Your task to perform on an android device: View the shopping cart on bestbuy.com. Search for panasonic triple a on bestbuy.com, select the first entry, add it to the cart, then select checkout. Image 0: 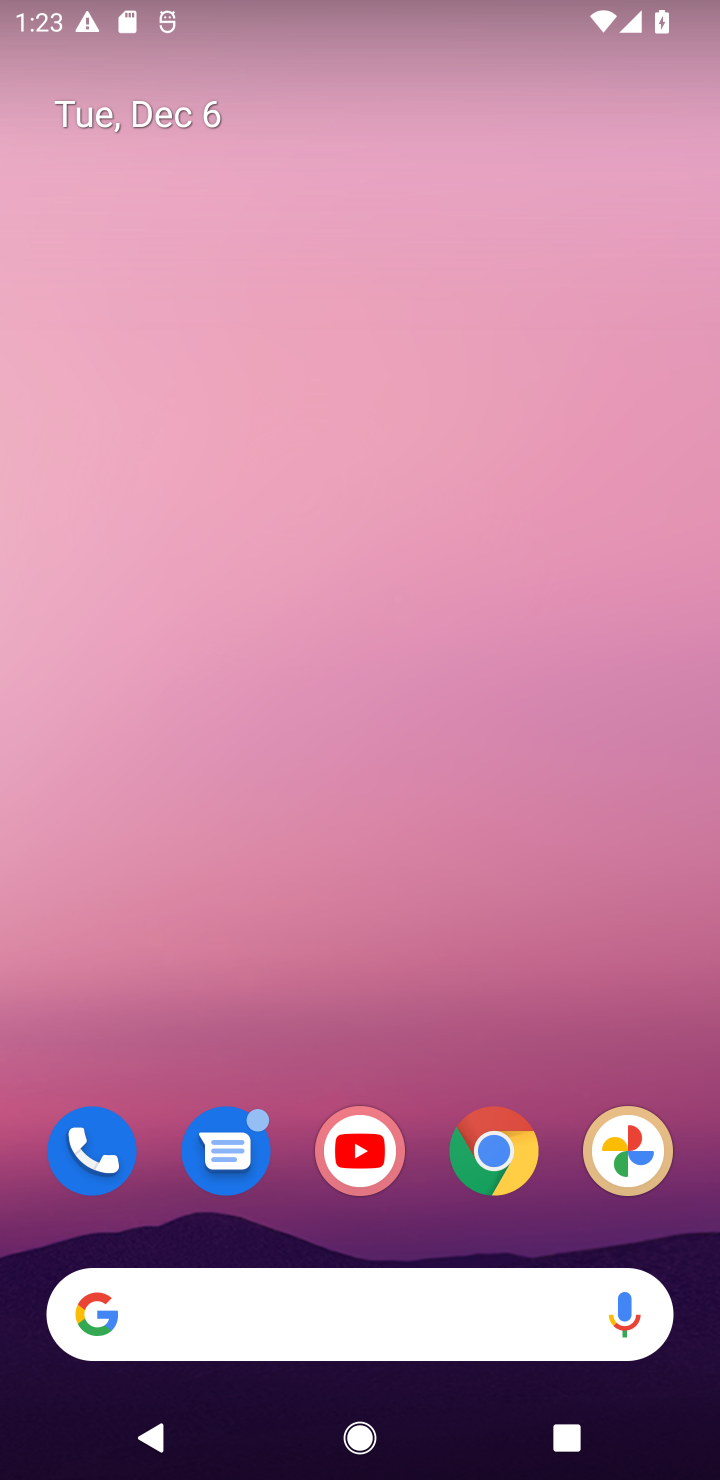
Step 0: click (487, 1156)
Your task to perform on an android device: View the shopping cart on bestbuy.com. Search for panasonic triple a on bestbuy.com, select the first entry, add it to the cart, then select checkout. Image 1: 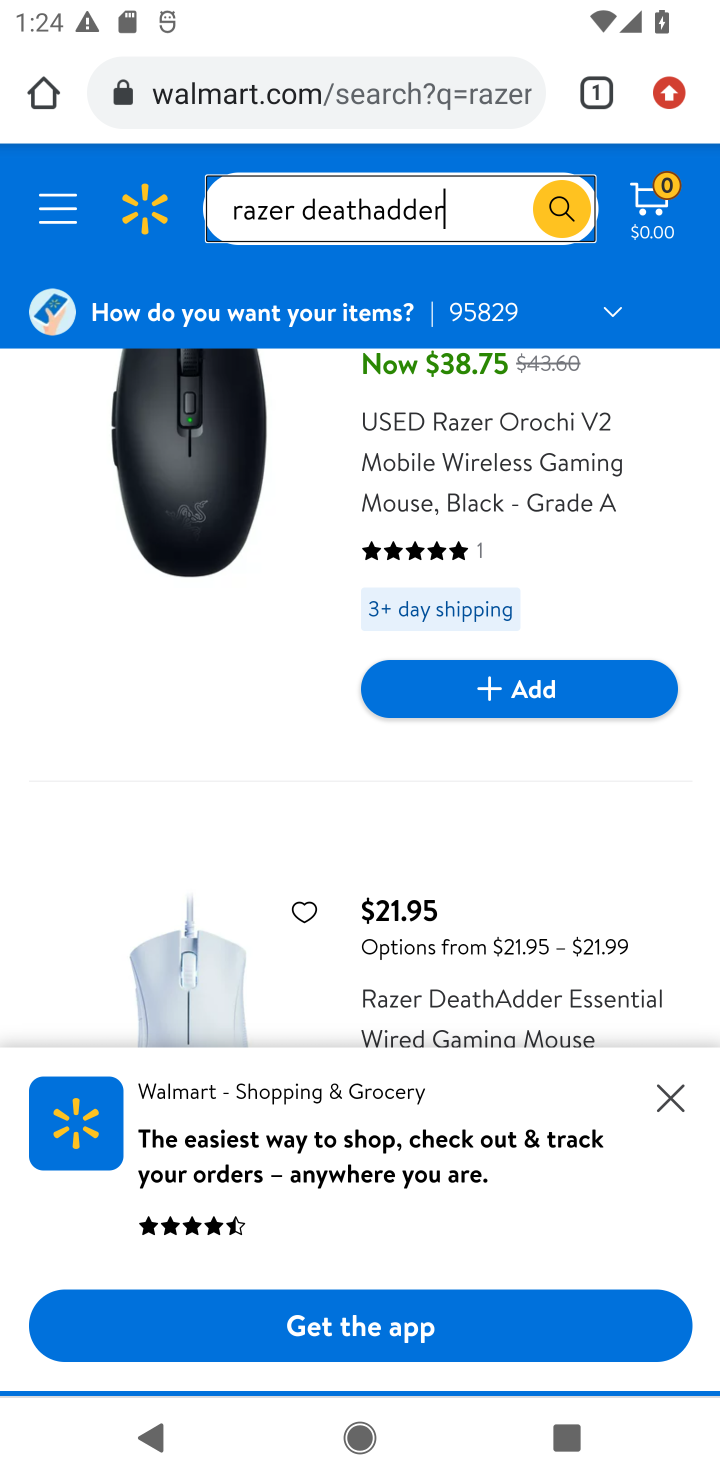
Step 1: click (295, 107)
Your task to perform on an android device: View the shopping cart on bestbuy.com. Search for panasonic triple a on bestbuy.com, select the first entry, add it to the cart, then select checkout. Image 2: 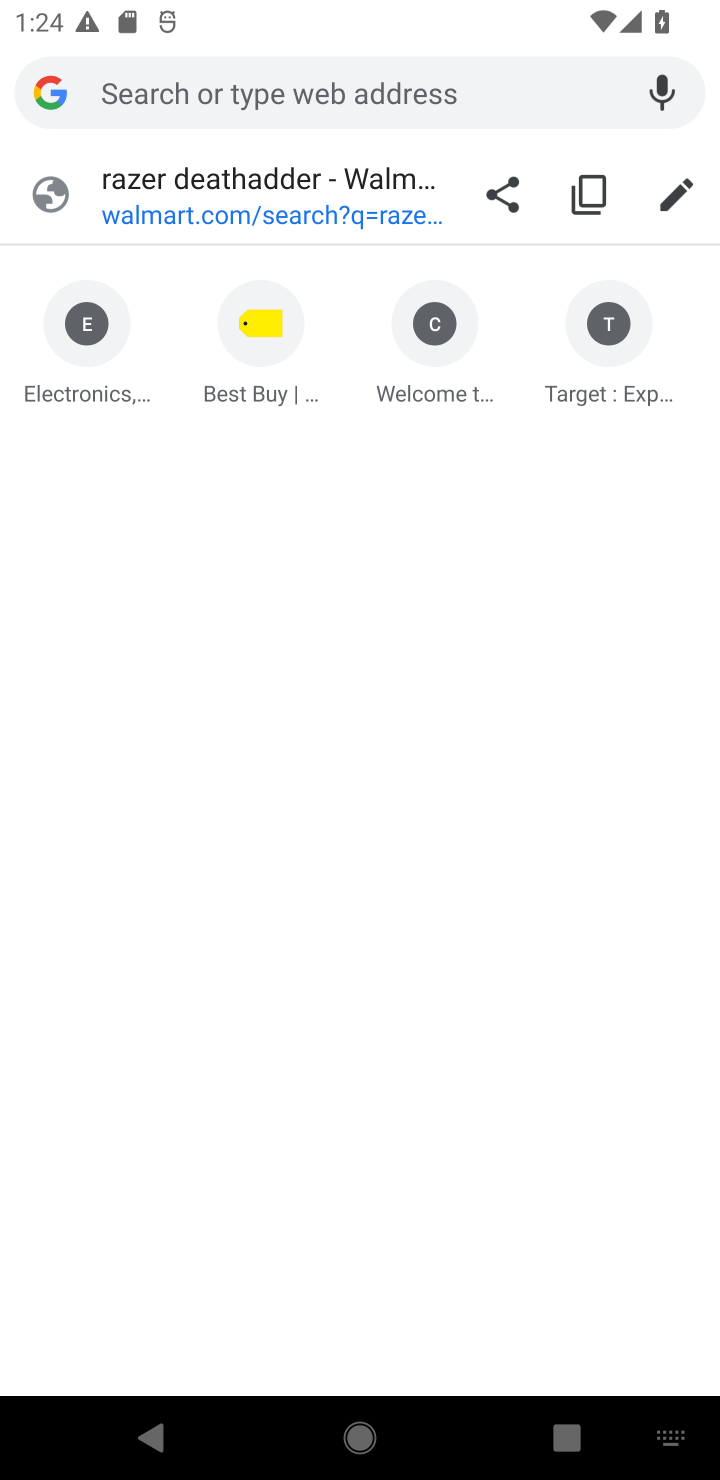
Step 2: click (252, 391)
Your task to perform on an android device: View the shopping cart on bestbuy.com. Search for panasonic triple a on bestbuy.com, select the first entry, add it to the cart, then select checkout. Image 3: 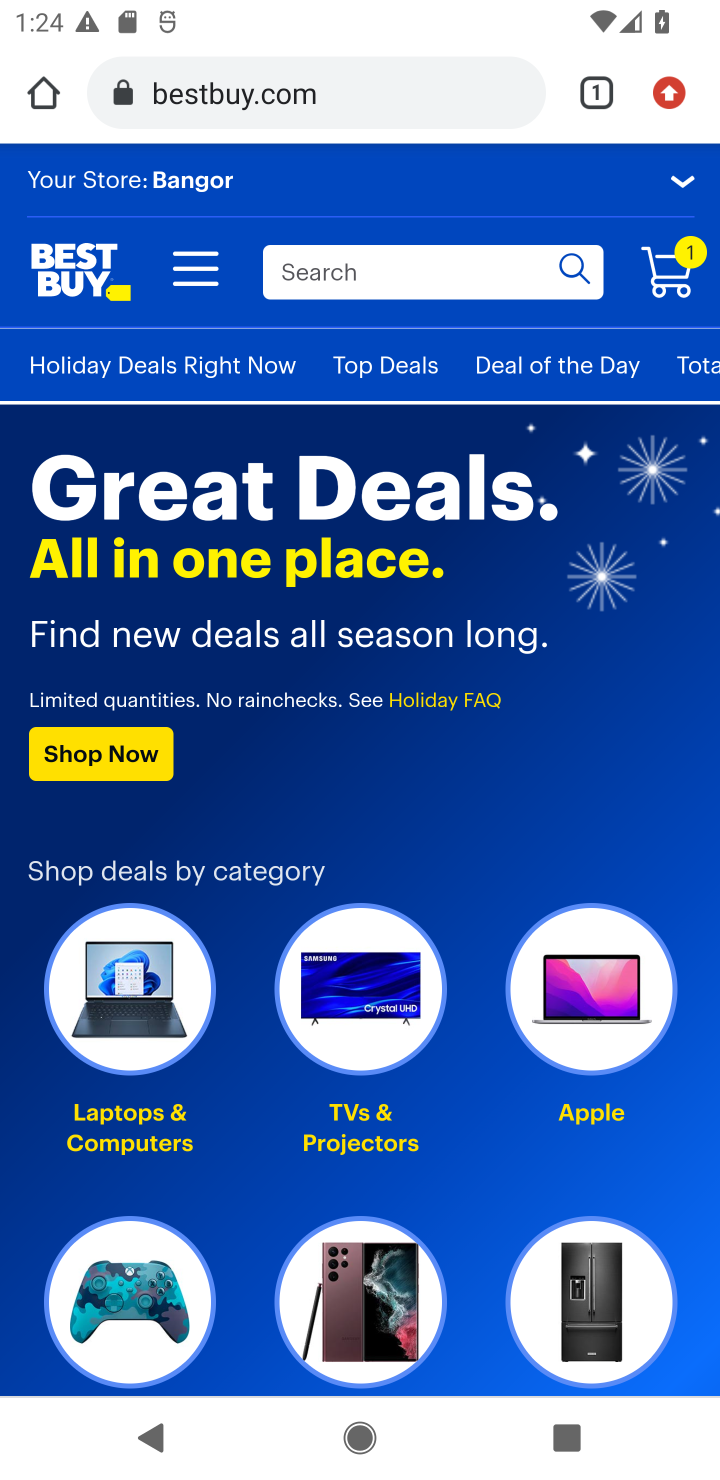
Step 3: click (672, 280)
Your task to perform on an android device: View the shopping cart on bestbuy.com. Search for panasonic triple a on bestbuy.com, select the first entry, add it to the cart, then select checkout. Image 4: 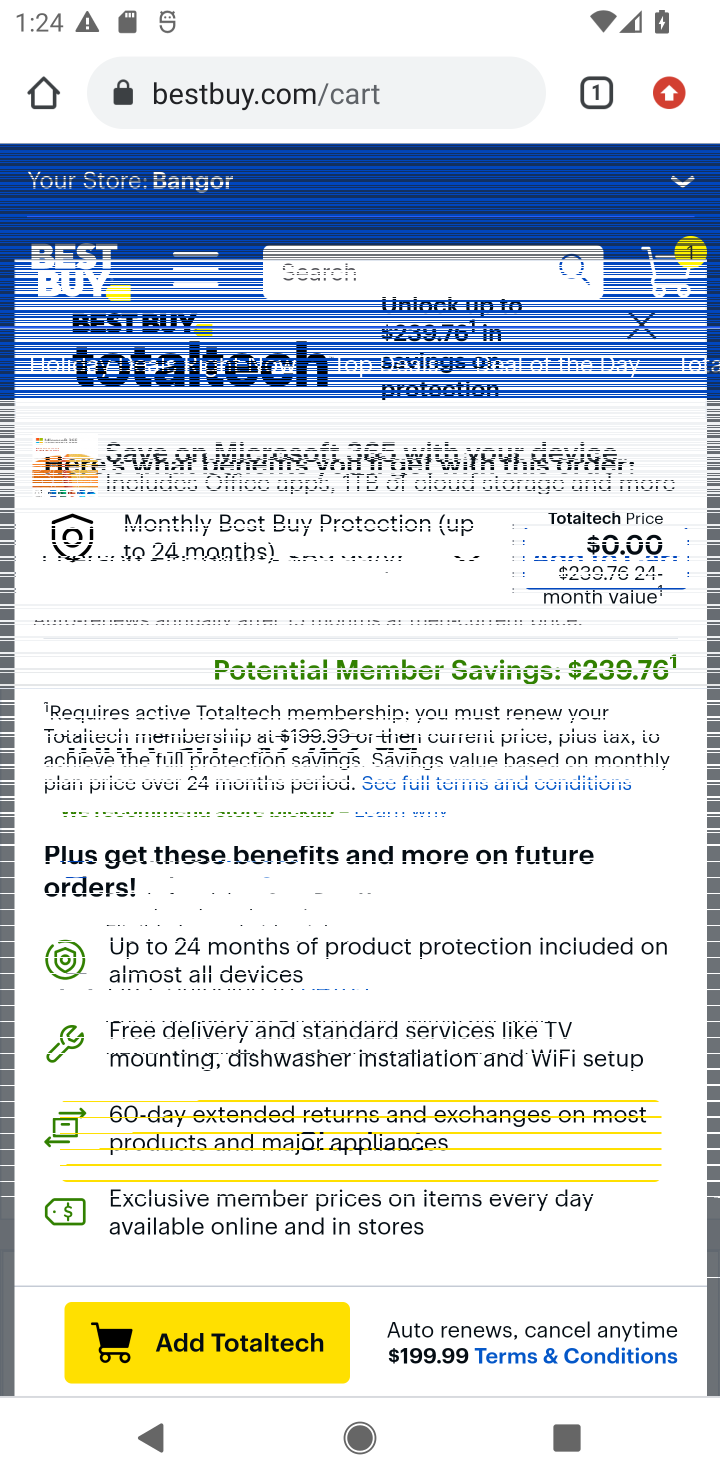
Step 4: click (639, 322)
Your task to perform on an android device: View the shopping cart on bestbuy.com. Search for panasonic triple a on bestbuy.com, select the first entry, add it to the cart, then select checkout. Image 5: 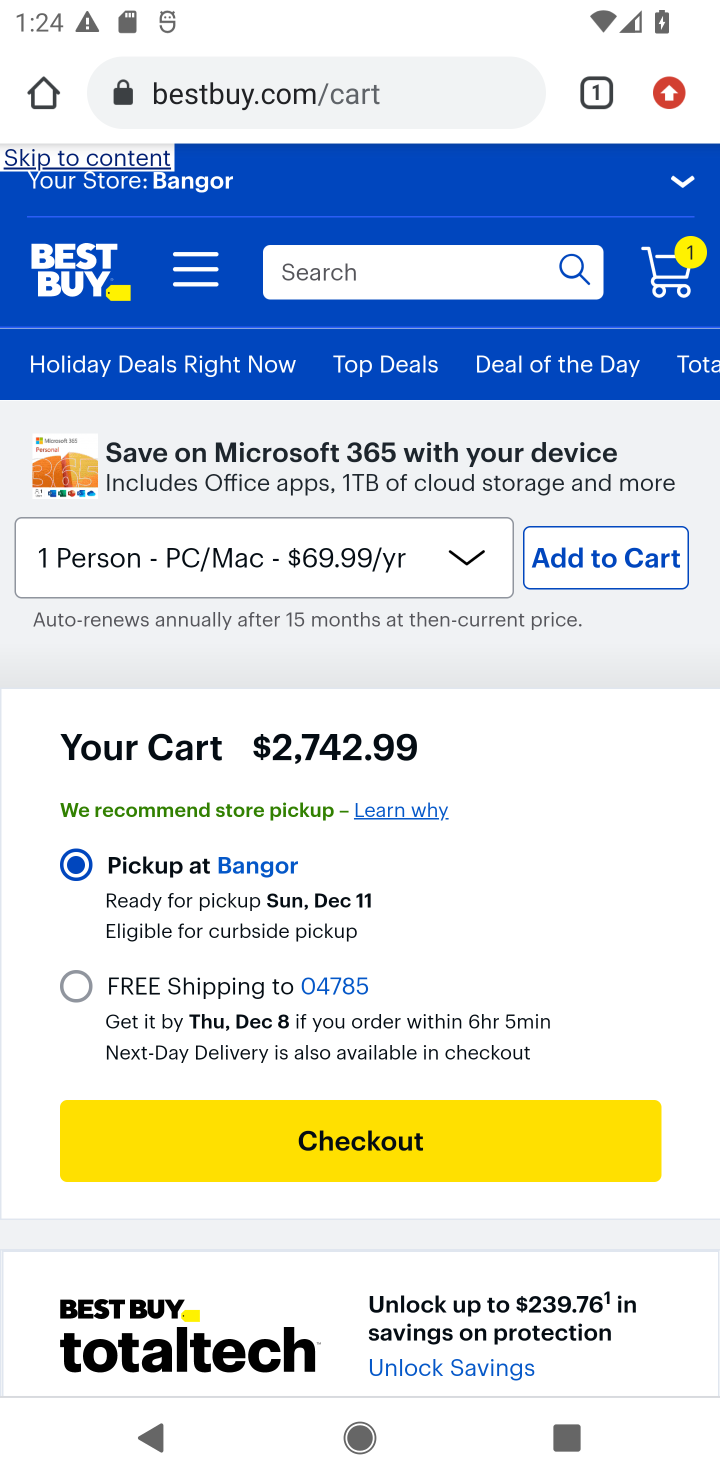
Step 5: drag from (506, 835) to (532, 540)
Your task to perform on an android device: View the shopping cart on bestbuy.com. Search for panasonic triple a on bestbuy.com, select the first entry, add it to the cart, then select checkout. Image 6: 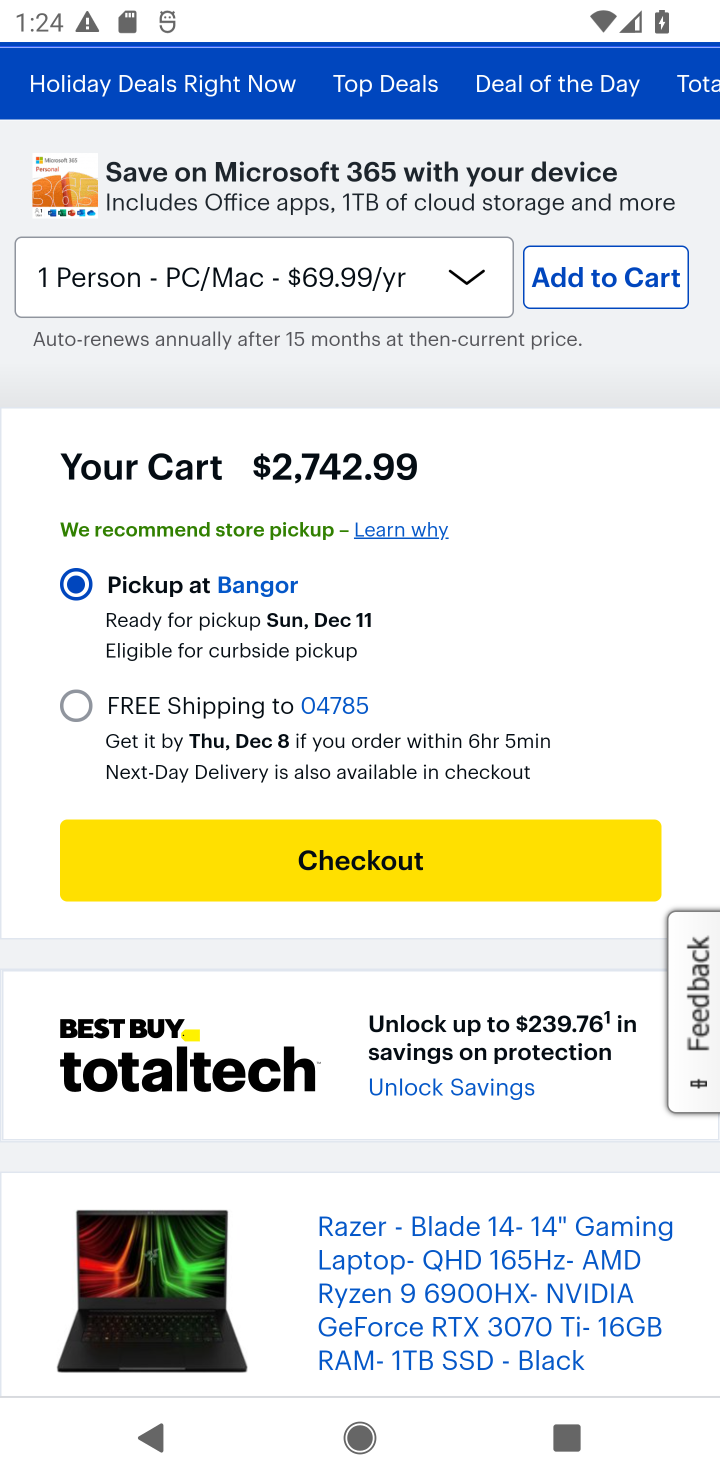
Step 6: drag from (278, 314) to (264, 958)
Your task to perform on an android device: View the shopping cart on bestbuy.com. Search for panasonic triple a on bestbuy.com, select the first entry, add it to the cart, then select checkout. Image 7: 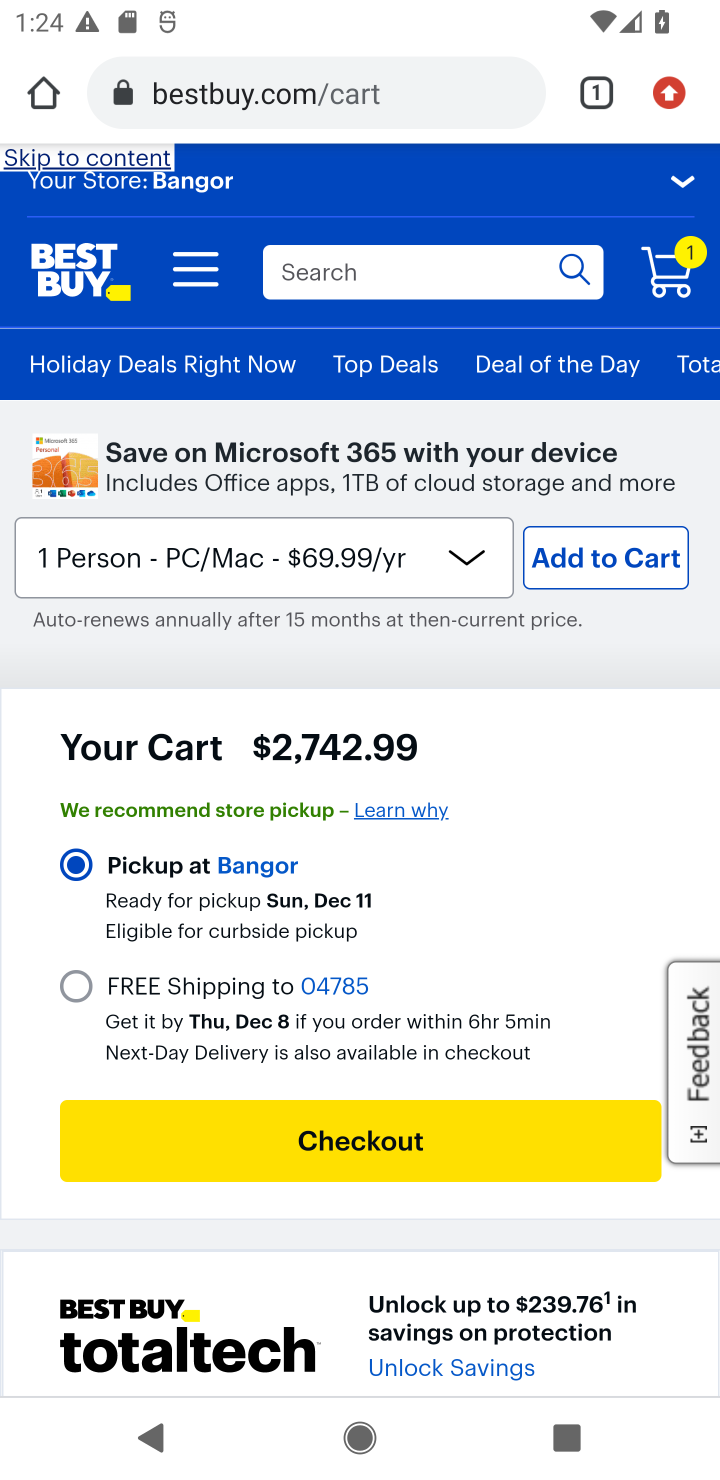
Step 7: click (284, 283)
Your task to perform on an android device: View the shopping cart on bestbuy.com. Search for panasonic triple a on bestbuy.com, select the first entry, add it to the cart, then select checkout. Image 8: 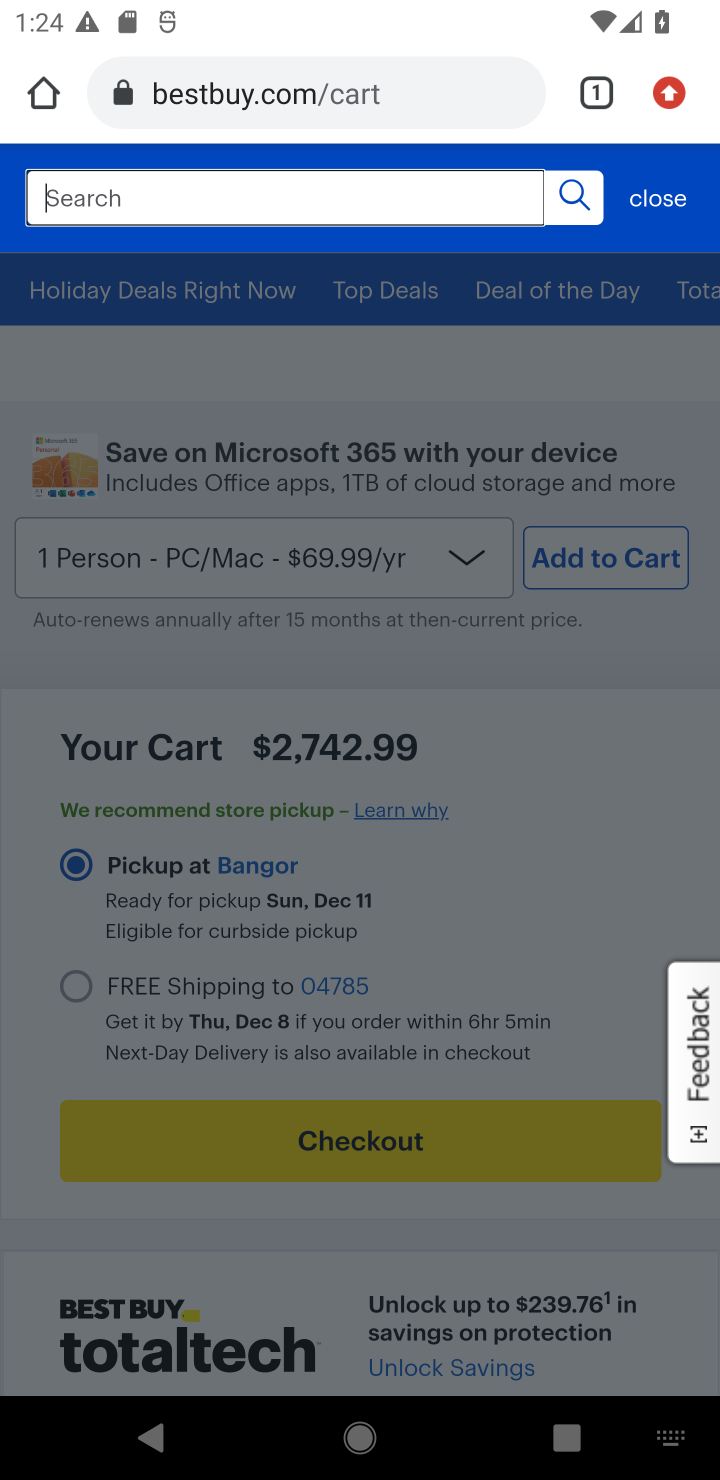
Step 8: type "panasonic triple a"
Your task to perform on an android device: View the shopping cart on bestbuy.com. Search for panasonic triple a on bestbuy.com, select the first entry, add it to the cart, then select checkout. Image 9: 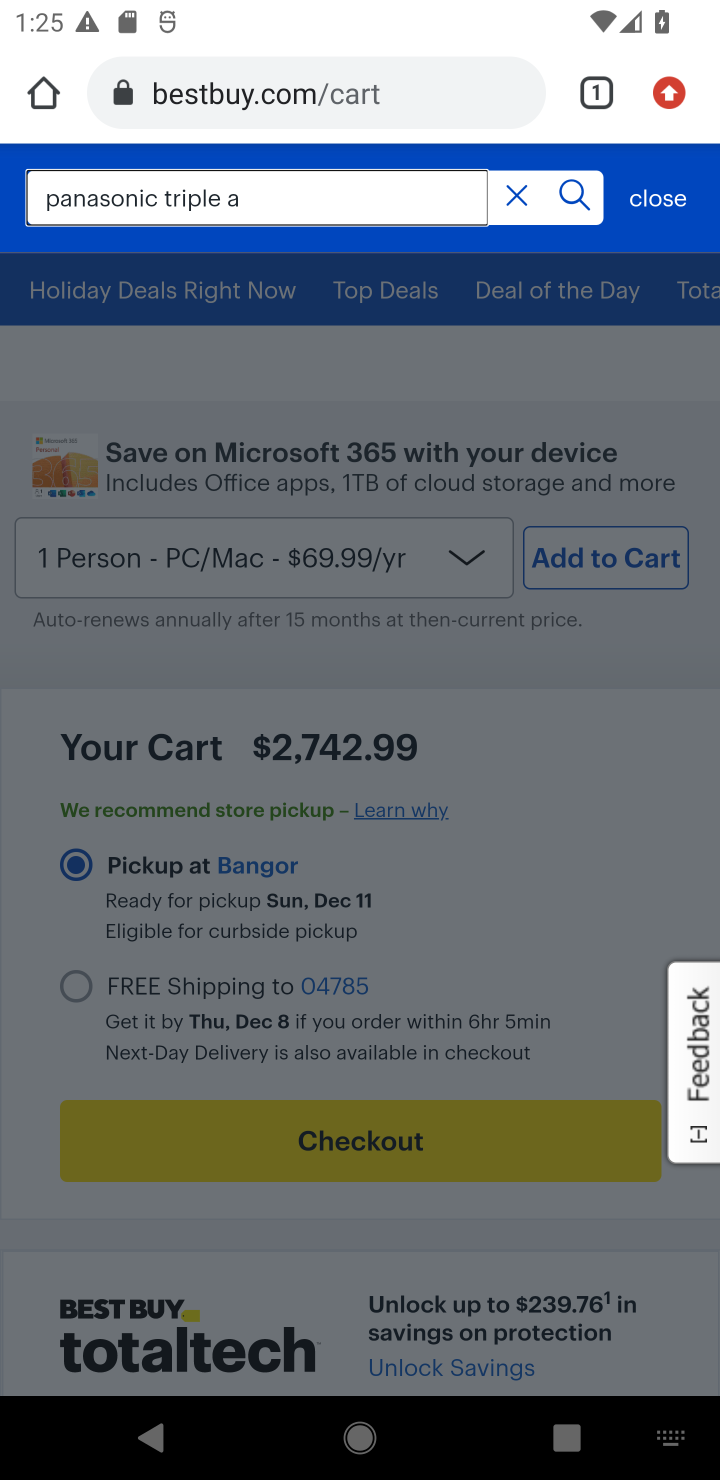
Step 9: click (575, 200)
Your task to perform on an android device: View the shopping cart on bestbuy.com. Search for panasonic triple a on bestbuy.com, select the first entry, add it to the cart, then select checkout. Image 10: 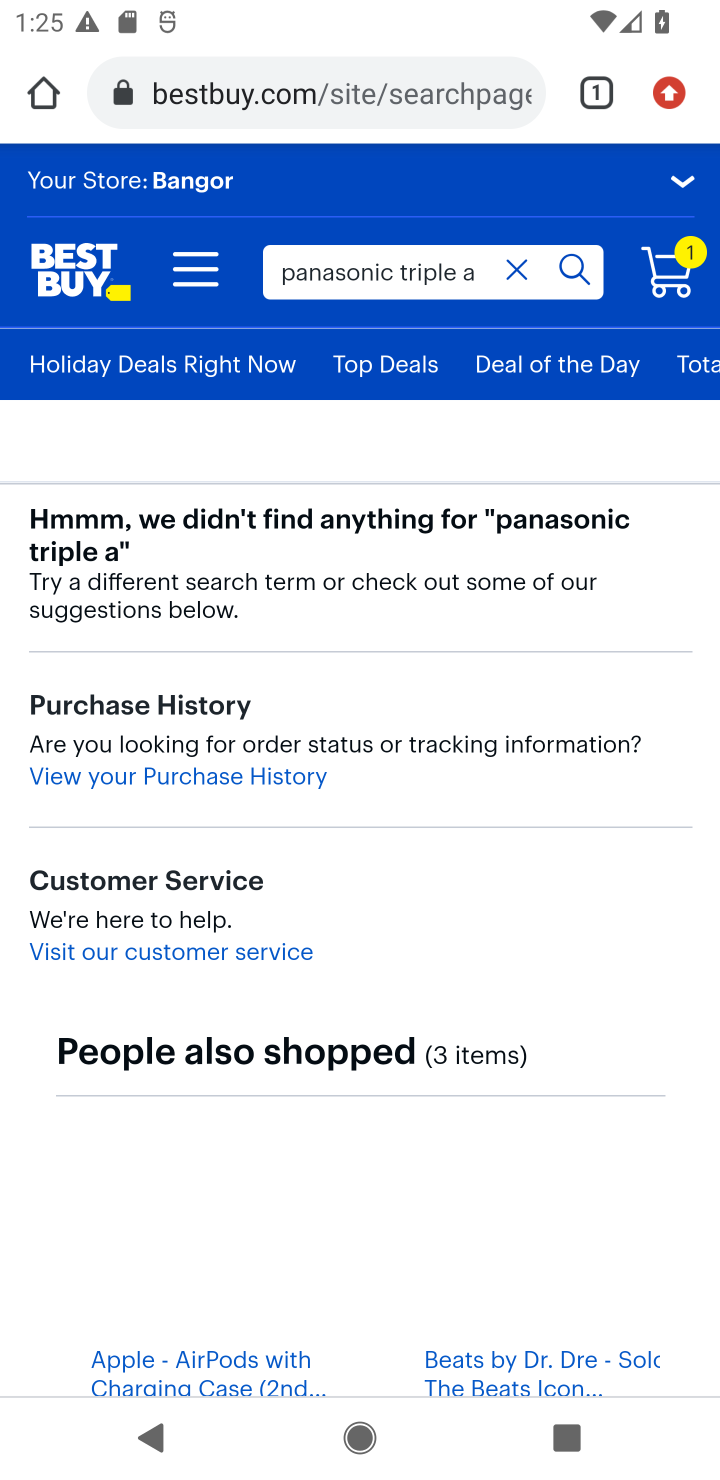
Step 10: task complete